Your task to perform on an android device: What's on my calendar tomorrow? Image 0: 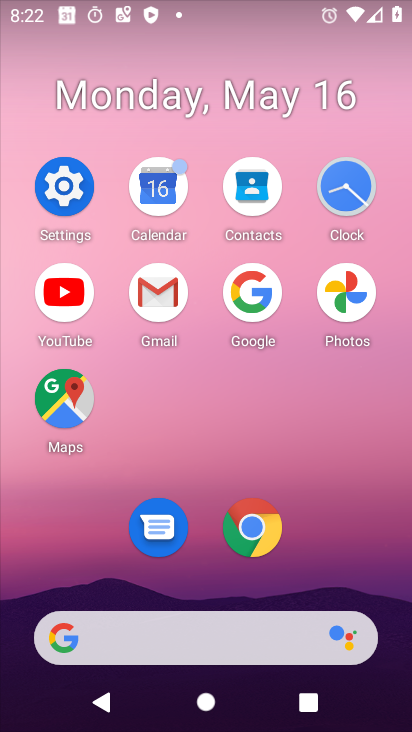
Step 0: click (147, 194)
Your task to perform on an android device: What's on my calendar tomorrow? Image 1: 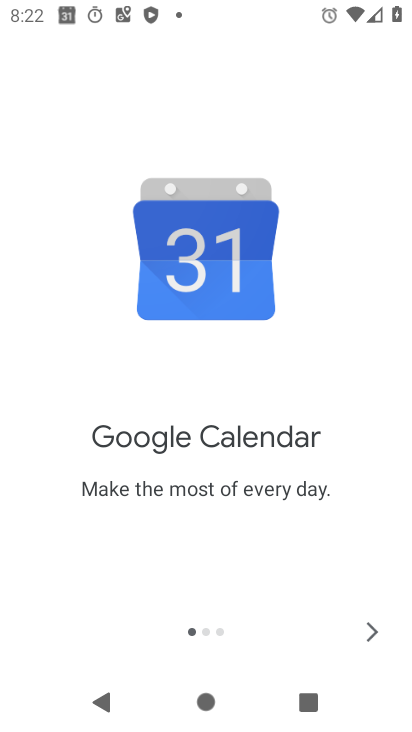
Step 1: click (377, 631)
Your task to perform on an android device: What's on my calendar tomorrow? Image 2: 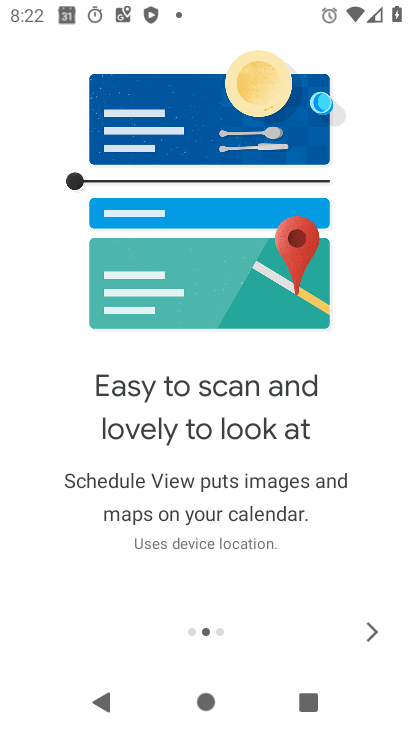
Step 2: click (377, 631)
Your task to perform on an android device: What's on my calendar tomorrow? Image 3: 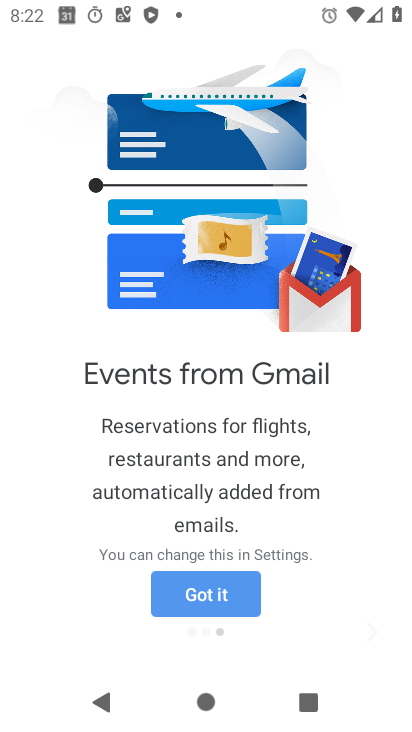
Step 3: click (377, 631)
Your task to perform on an android device: What's on my calendar tomorrow? Image 4: 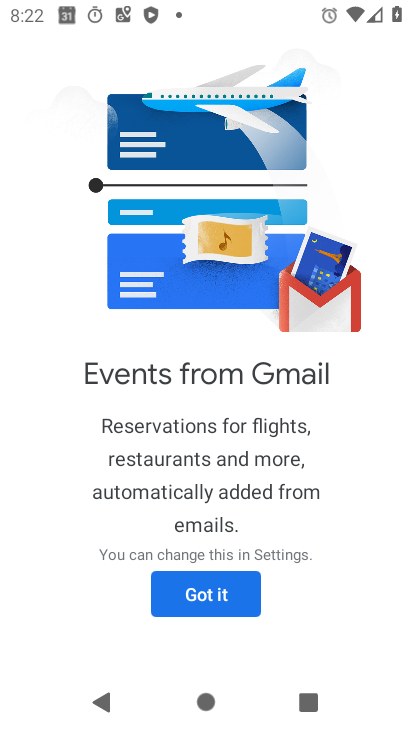
Step 4: click (228, 582)
Your task to perform on an android device: What's on my calendar tomorrow? Image 5: 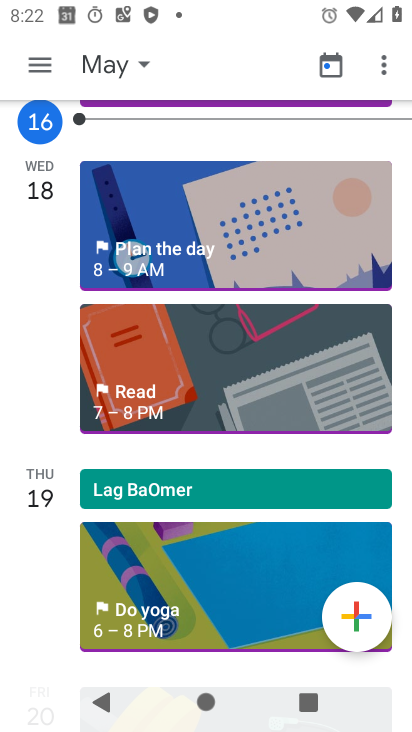
Step 5: click (37, 304)
Your task to perform on an android device: What's on my calendar tomorrow? Image 6: 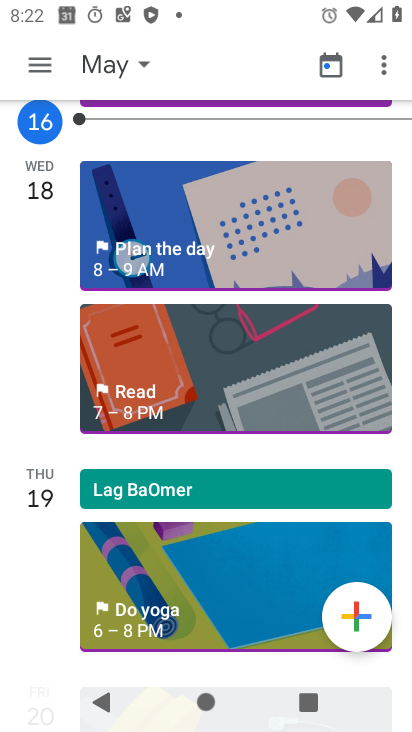
Step 6: click (41, 185)
Your task to perform on an android device: What's on my calendar tomorrow? Image 7: 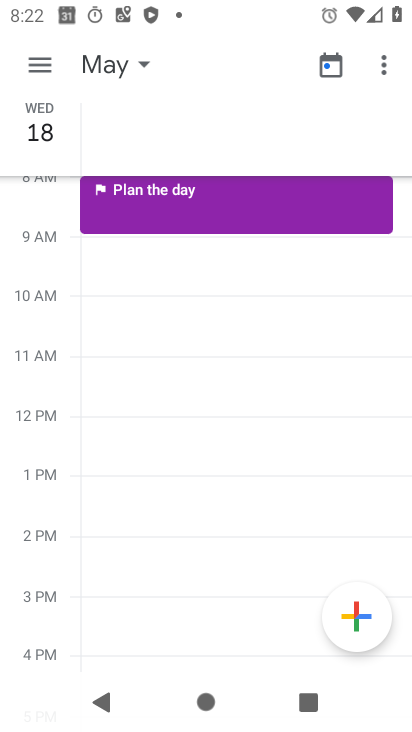
Step 7: task complete